Your task to perform on an android device: open app "Paramount+ | Peak Streaming" (install if not already installed) and go to login screen Image 0: 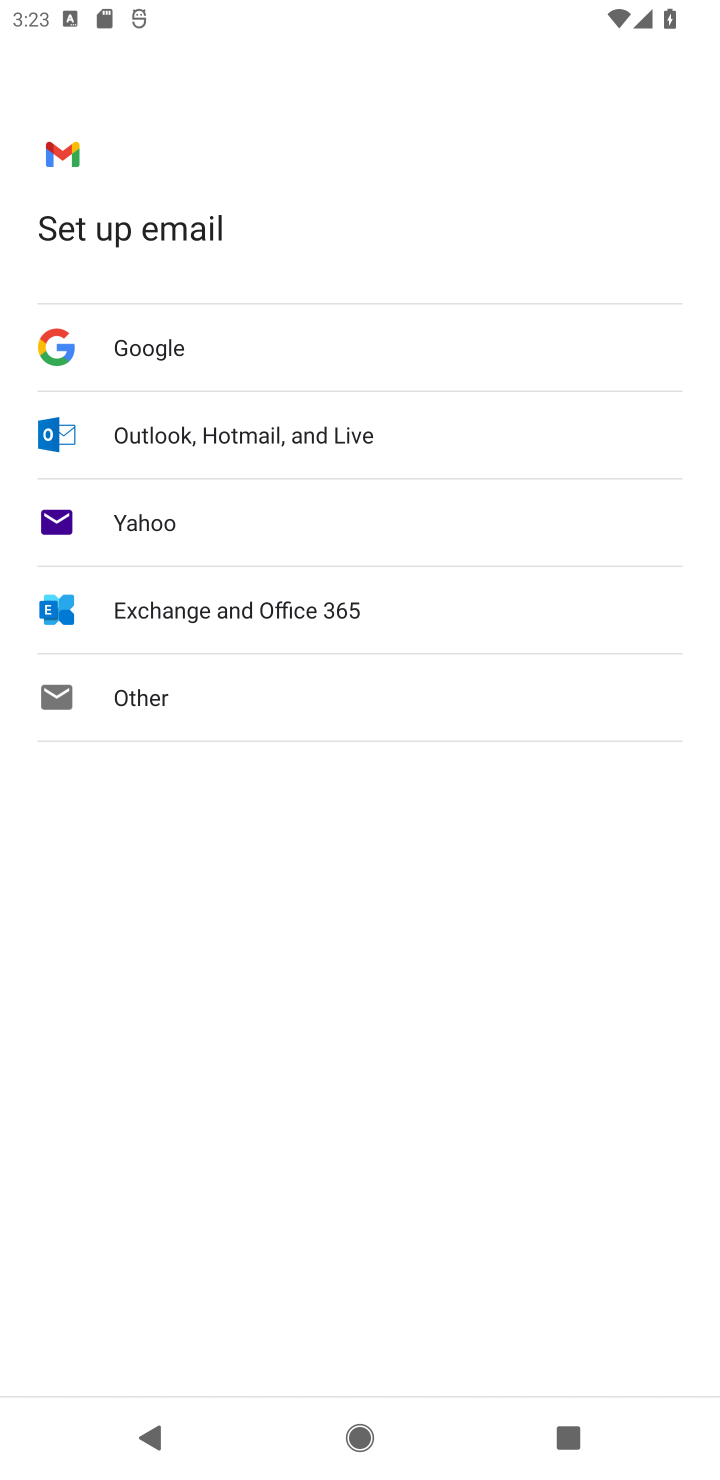
Step 0: press home button
Your task to perform on an android device: open app "Paramount+ | Peak Streaming" (install if not already installed) and go to login screen Image 1: 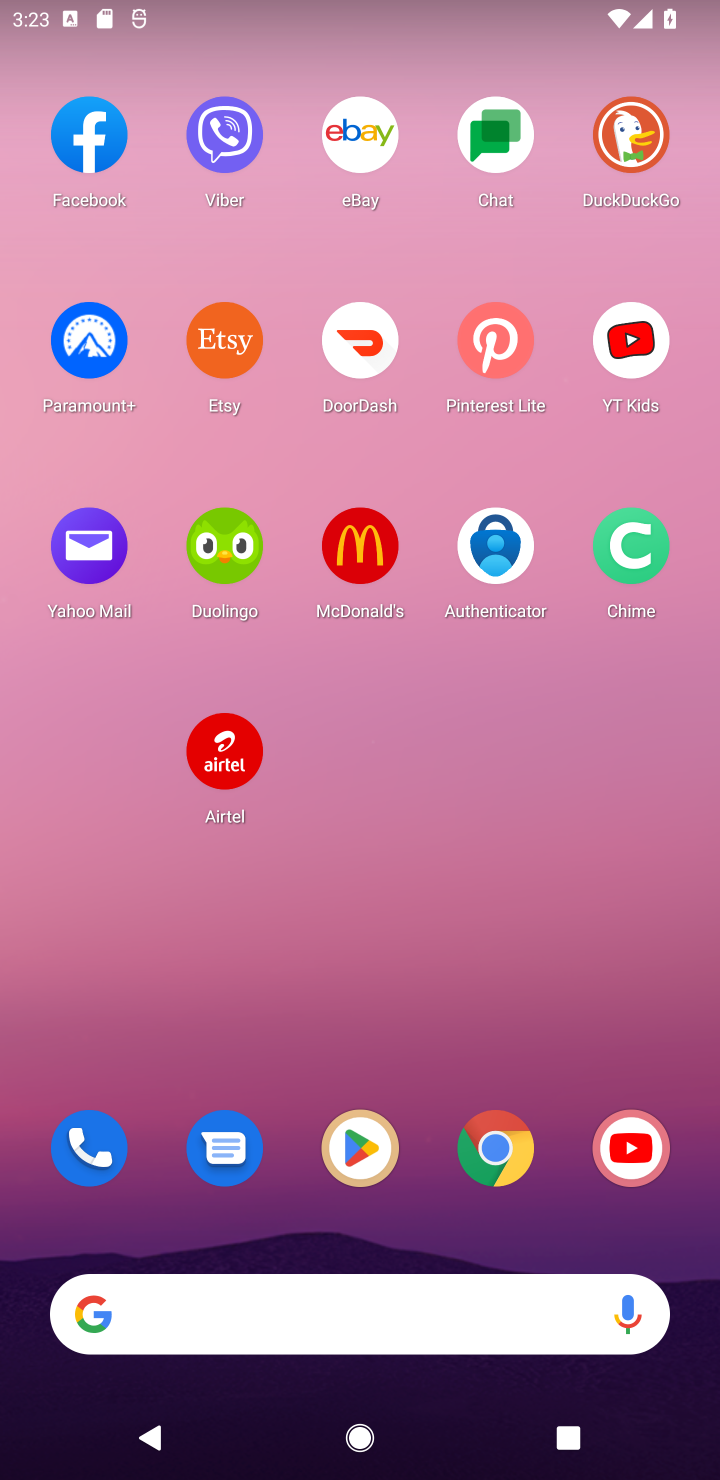
Step 1: drag from (393, 1200) to (460, 700)
Your task to perform on an android device: open app "Paramount+ | Peak Streaming" (install if not already installed) and go to login screen Image 2: 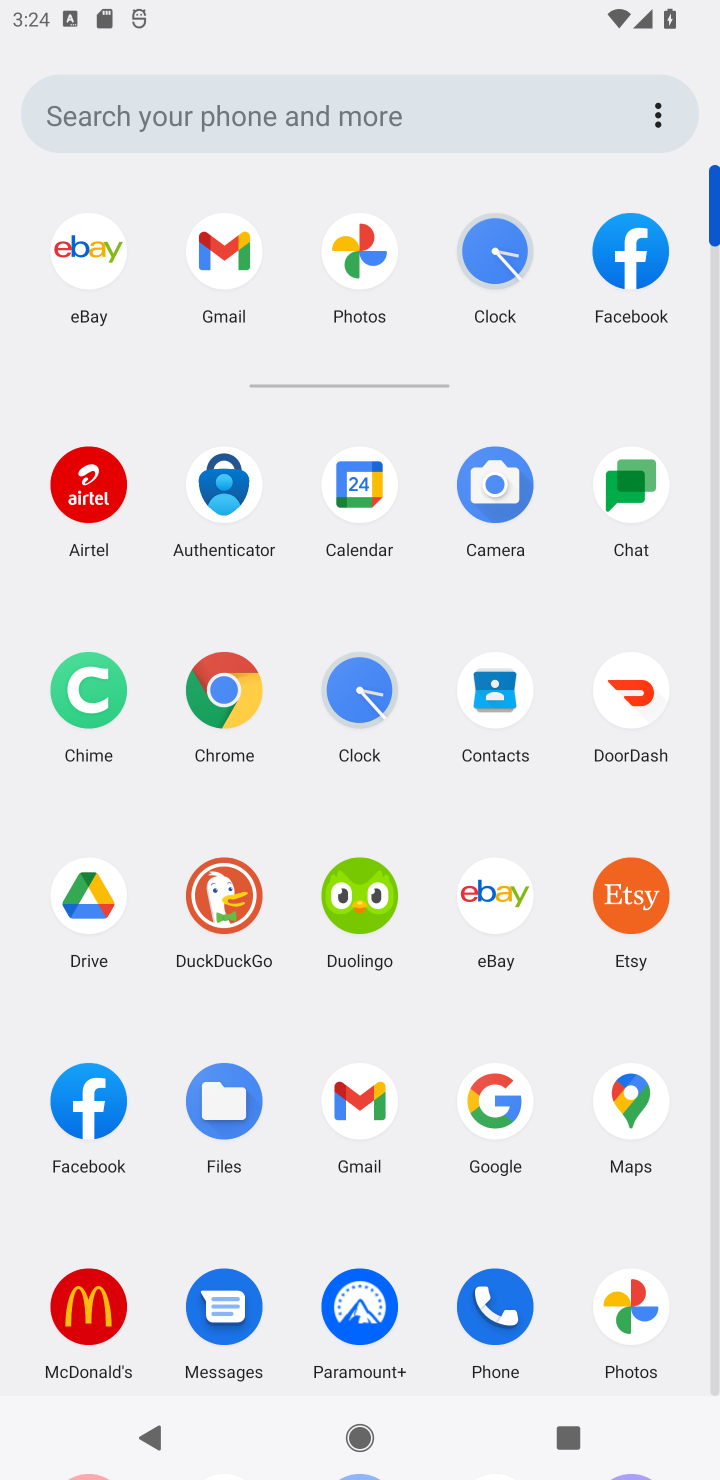
Step 2: drag from (305, 1182) to (334, 367)
Your task to perform on an android device: open app "Paramount+ | Peak Streaming" (install if not already installed) and go to login screen Image 3: 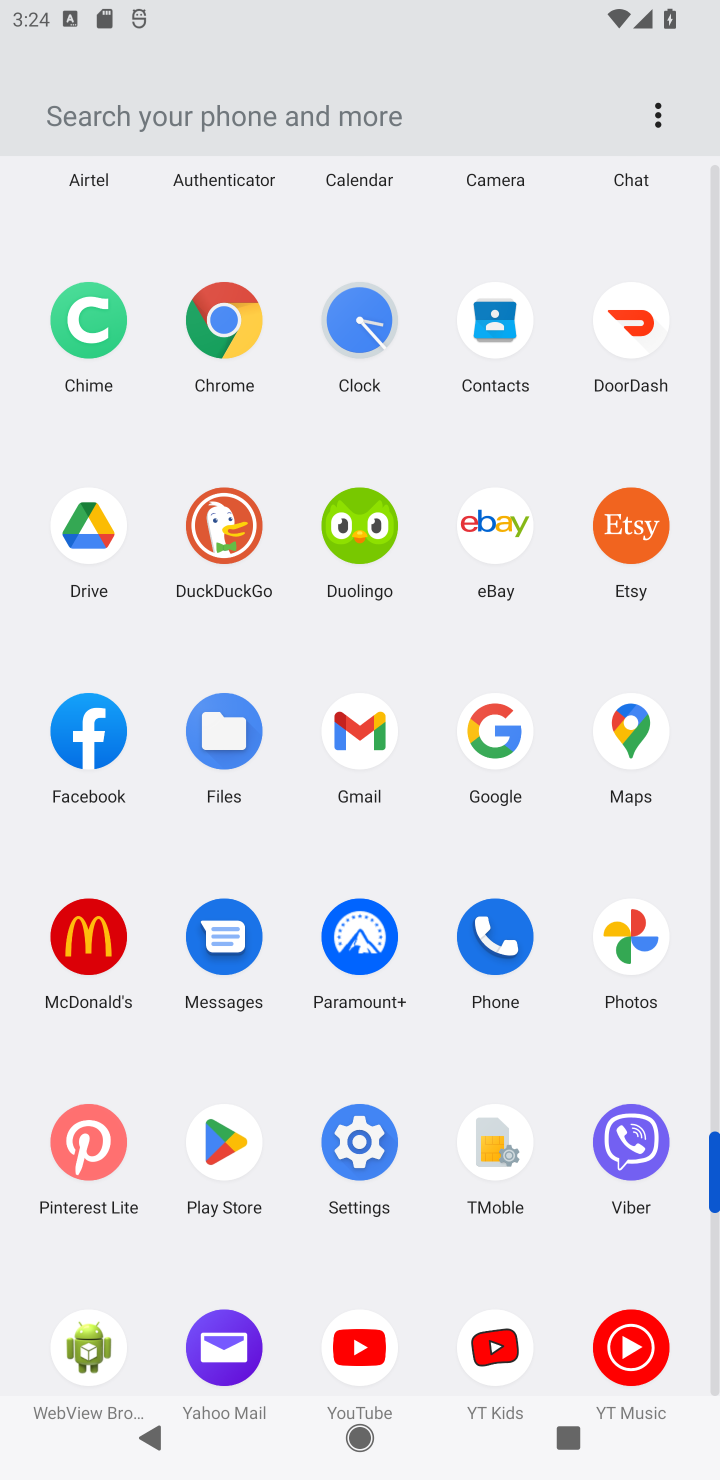
Step 3: click (217, 1140)
Your task to perform on an android device: open app "Paramount+ | Peak Streaming" (install if not already installed) and go to login screen Image 4: 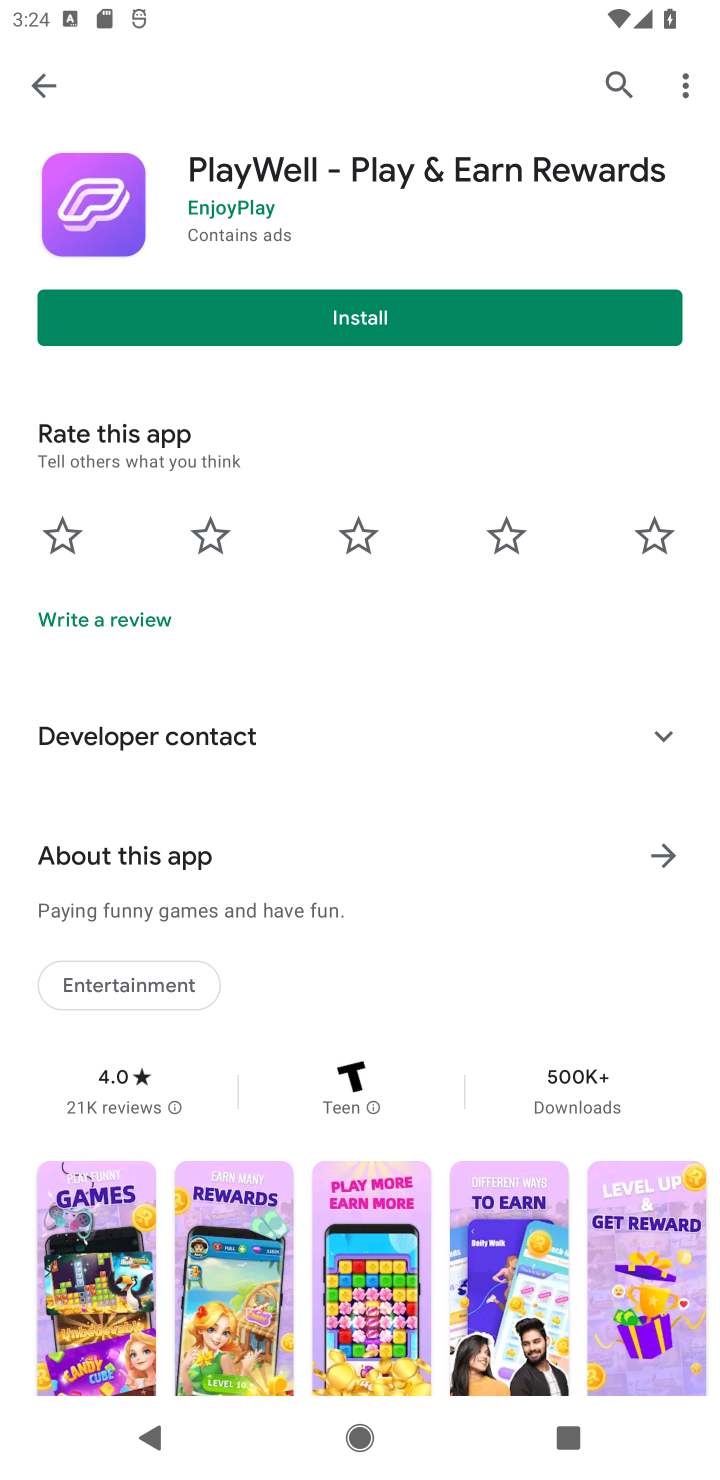
Step 4: click (30, 85)
Your task to perform on an android device: open app "Paramount+ | Peak Streaming" (install if not already installed) and go to login screen Image 5: 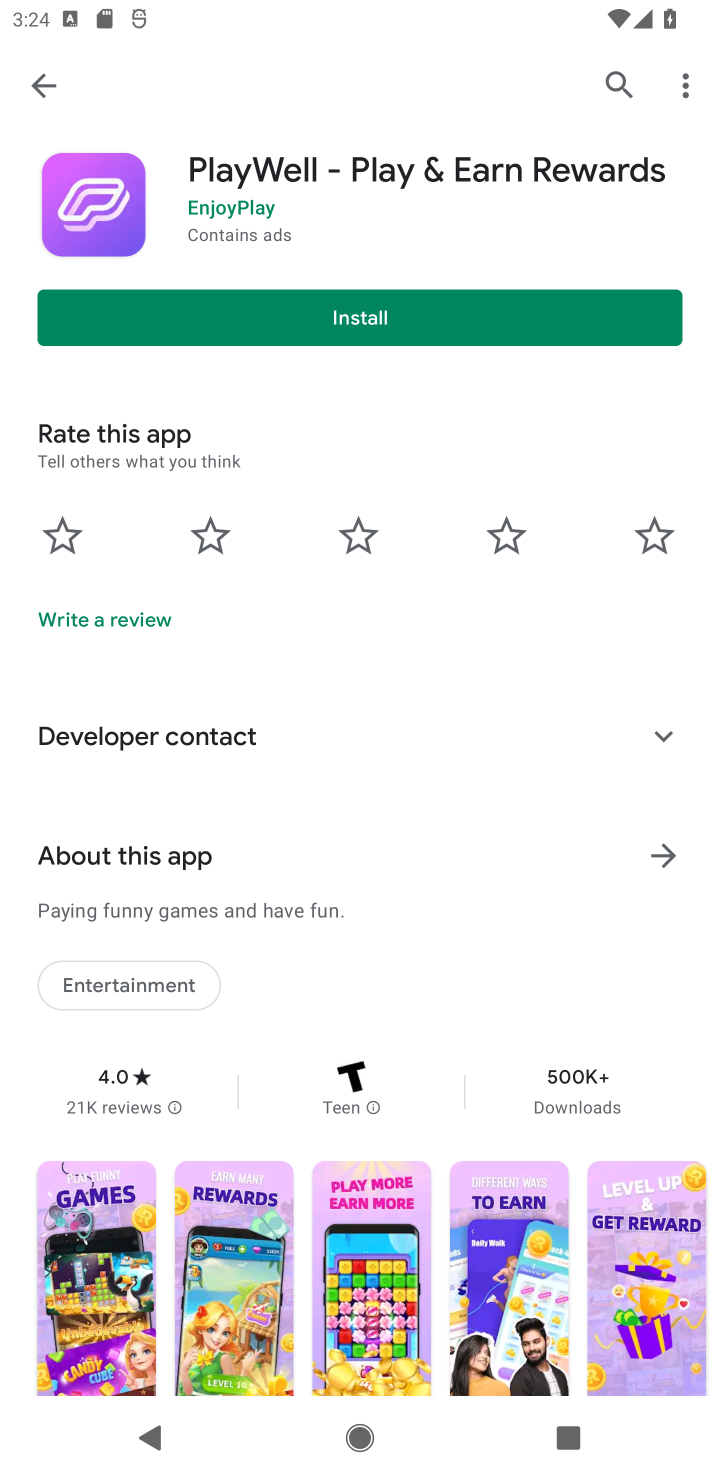
Step 5: click (34, 85)
Your task to perform on an android device: open app "Paramount+ | Peak Streaming" (install if not already installed) and go to login screen Image 6: 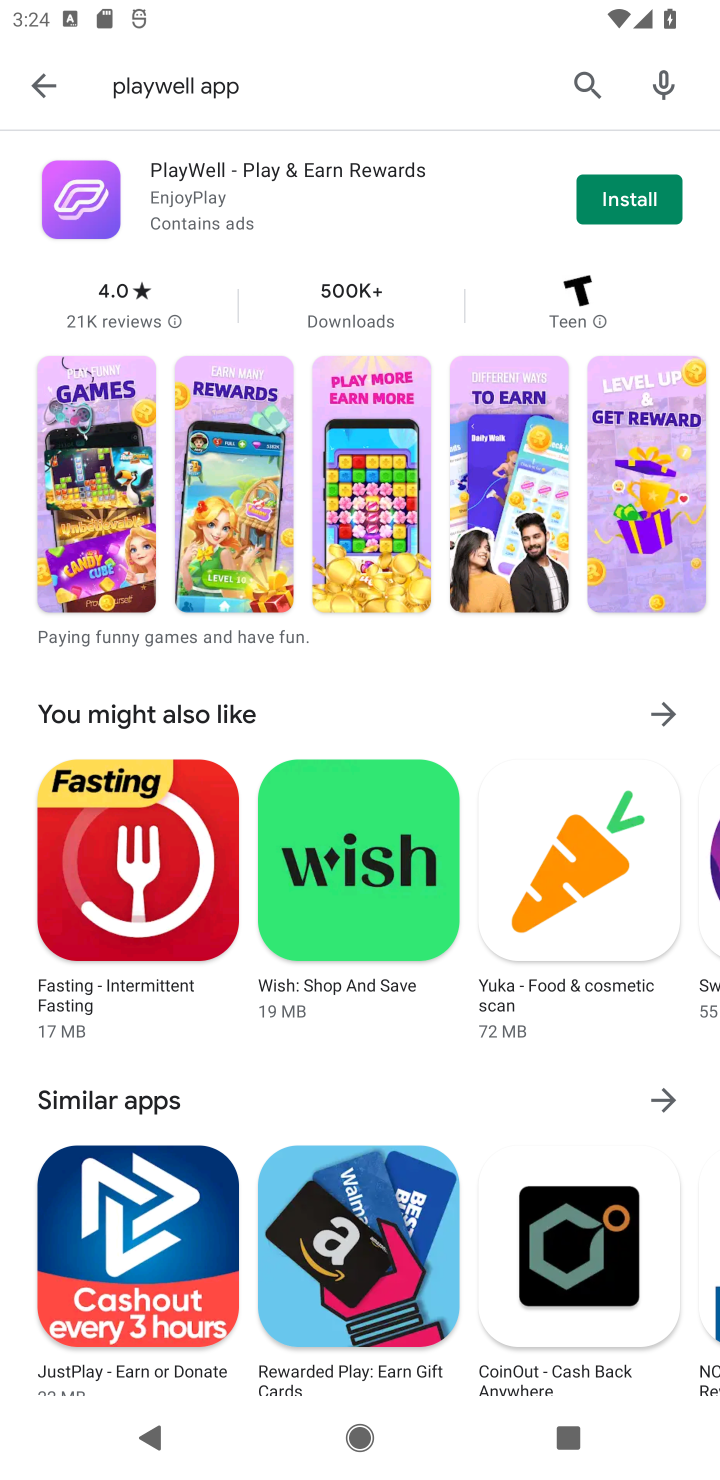
Step 6: click (45, 76)
Your task to perform on an android device: open app "Paramount+ | Peak Streaming" (install if not already installed) and go to login screen Image 7: 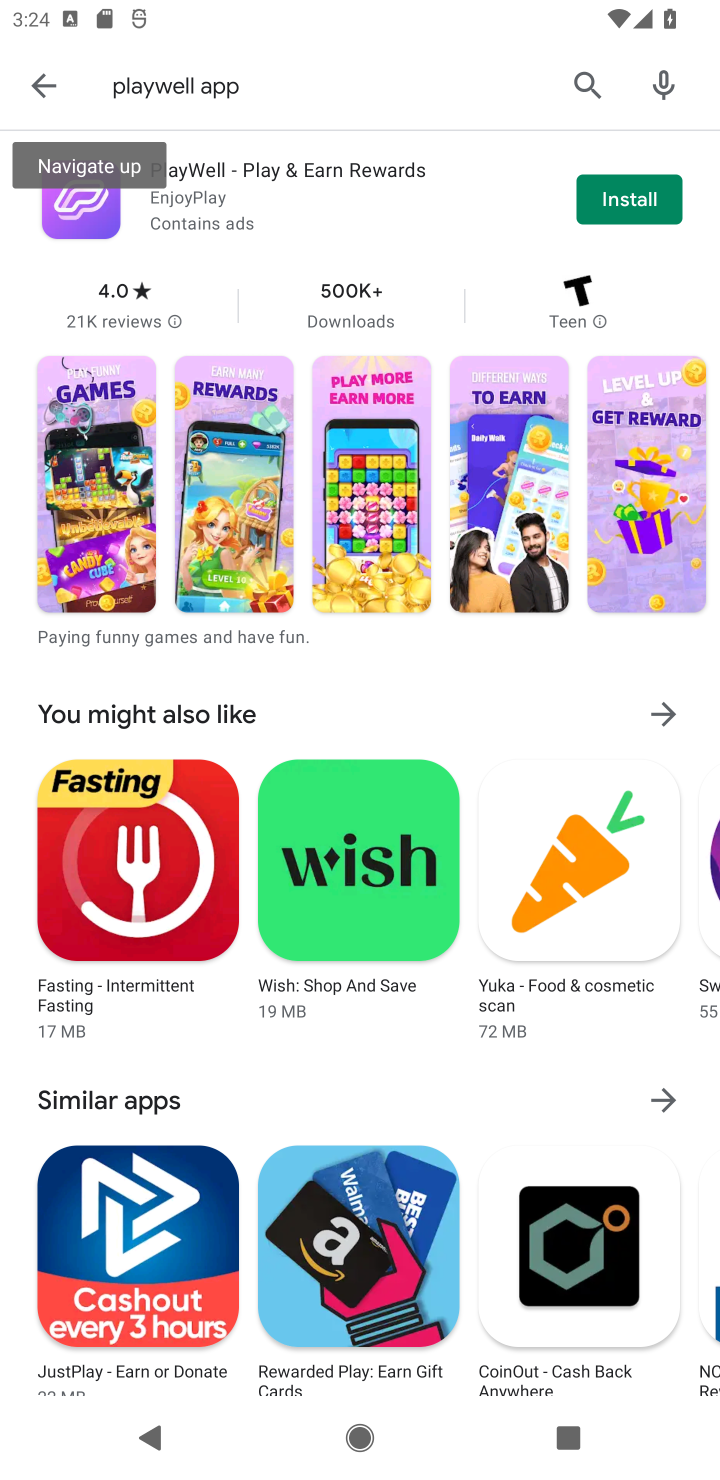
Step 7: click (45, 80)
Your task to perform on an android device: open app "Paramount+ | Peak Streaming" (install if not already installed) and go to login screen Image 8: 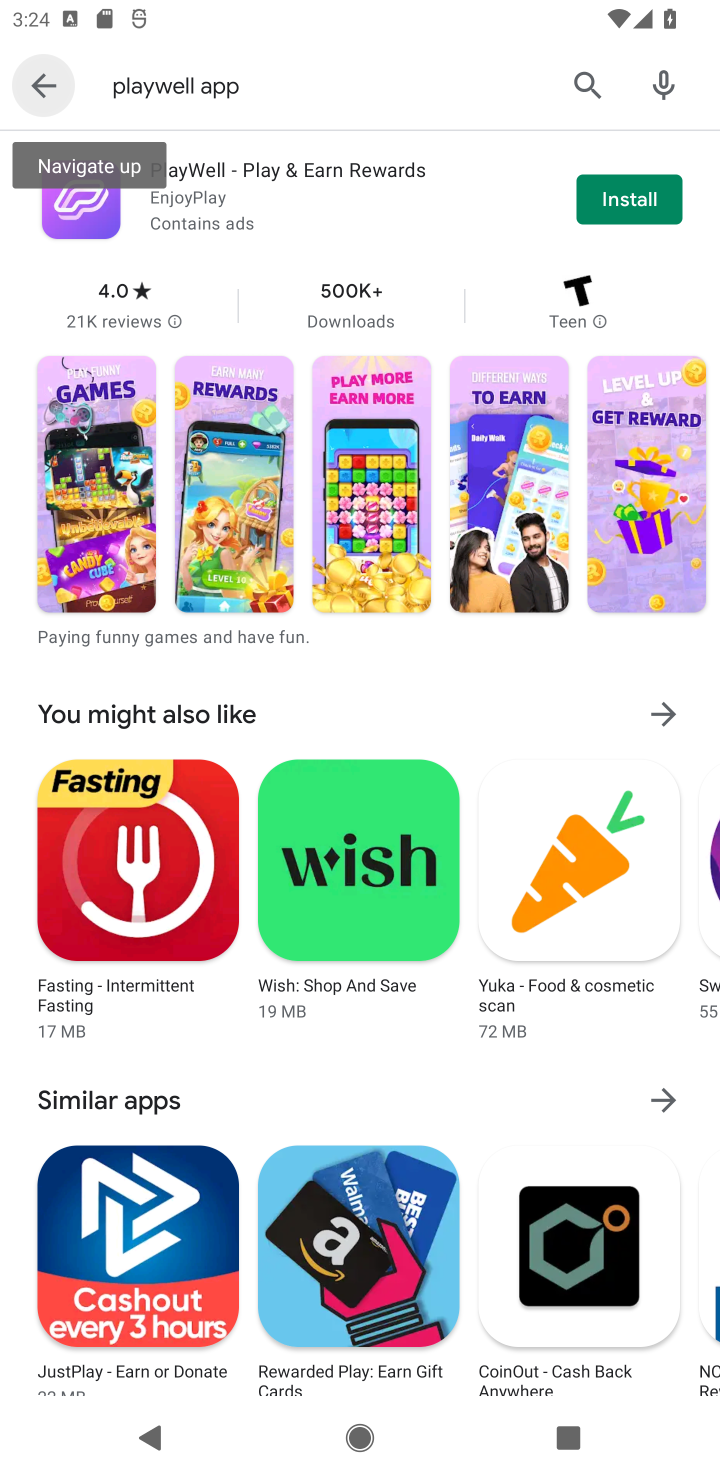
Step 8: click (568, 88)
Your task to perform on an android device: open app "Paramount+ | Peak Streaming" (install if not already installed) and go to login screen Image 9: 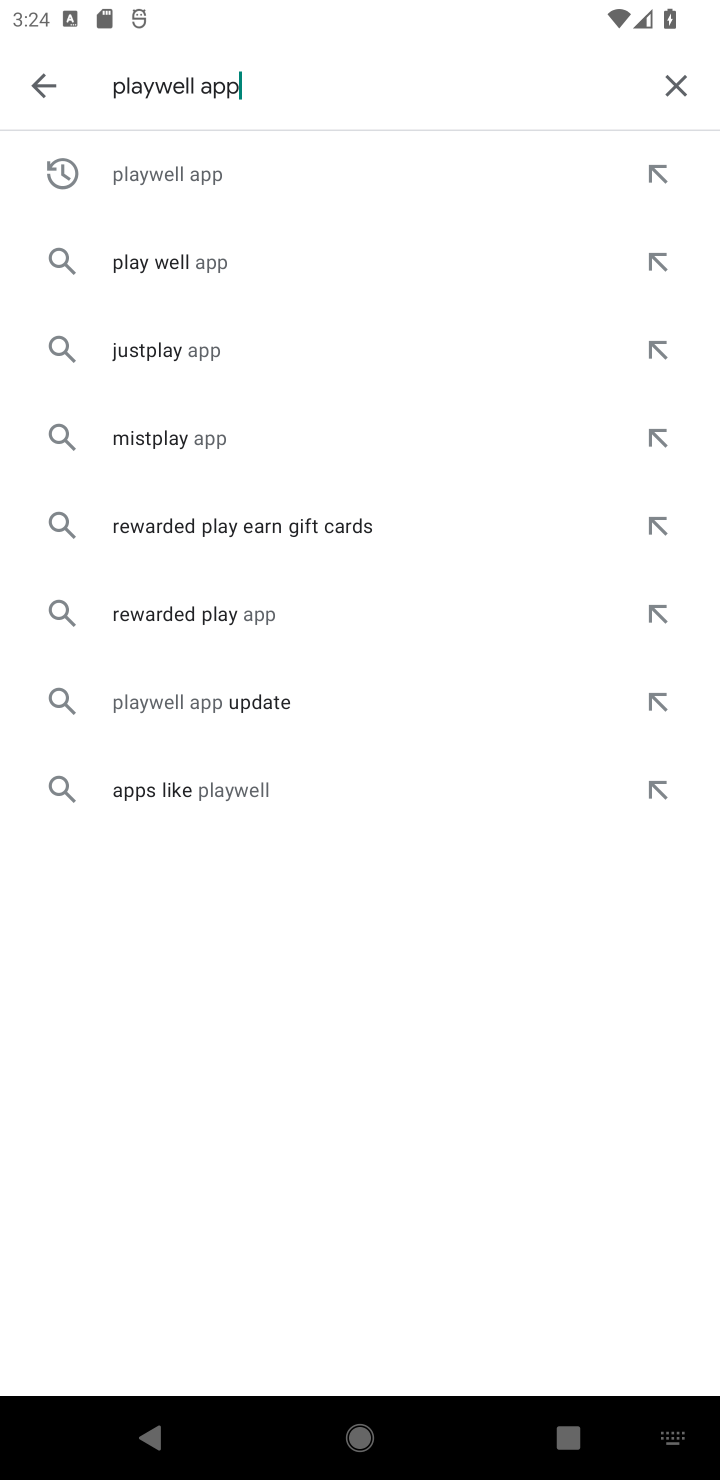
Step 9: click (683, 83)
Your task to perform on an android device: open app "Paramount+ | Peak Streaming" (install if not already installed) and go to login screen Image 10: 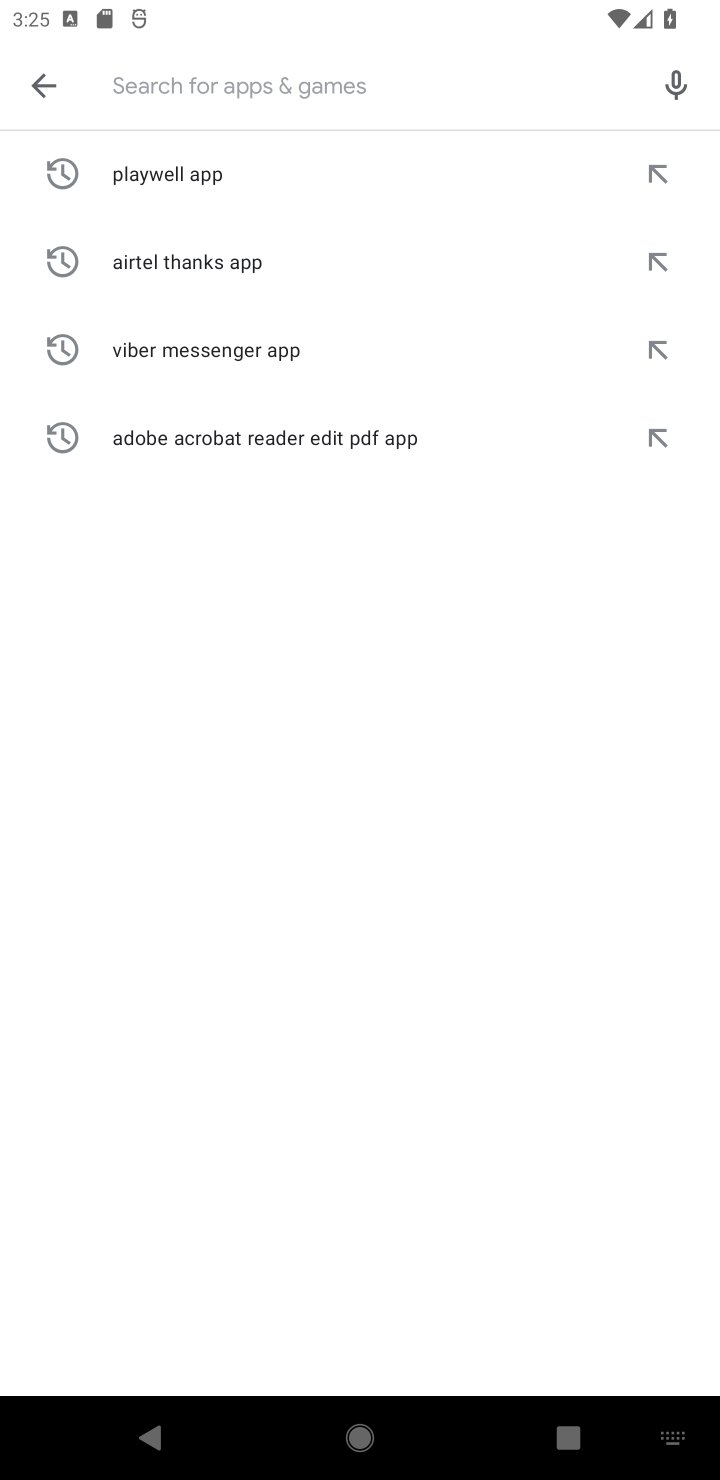
Step 10: click (296, 47)
Your task to perform on an android device: open app "Paramount+ | Peak Streaming" (install if not already installed) and go to login screen Image 11: 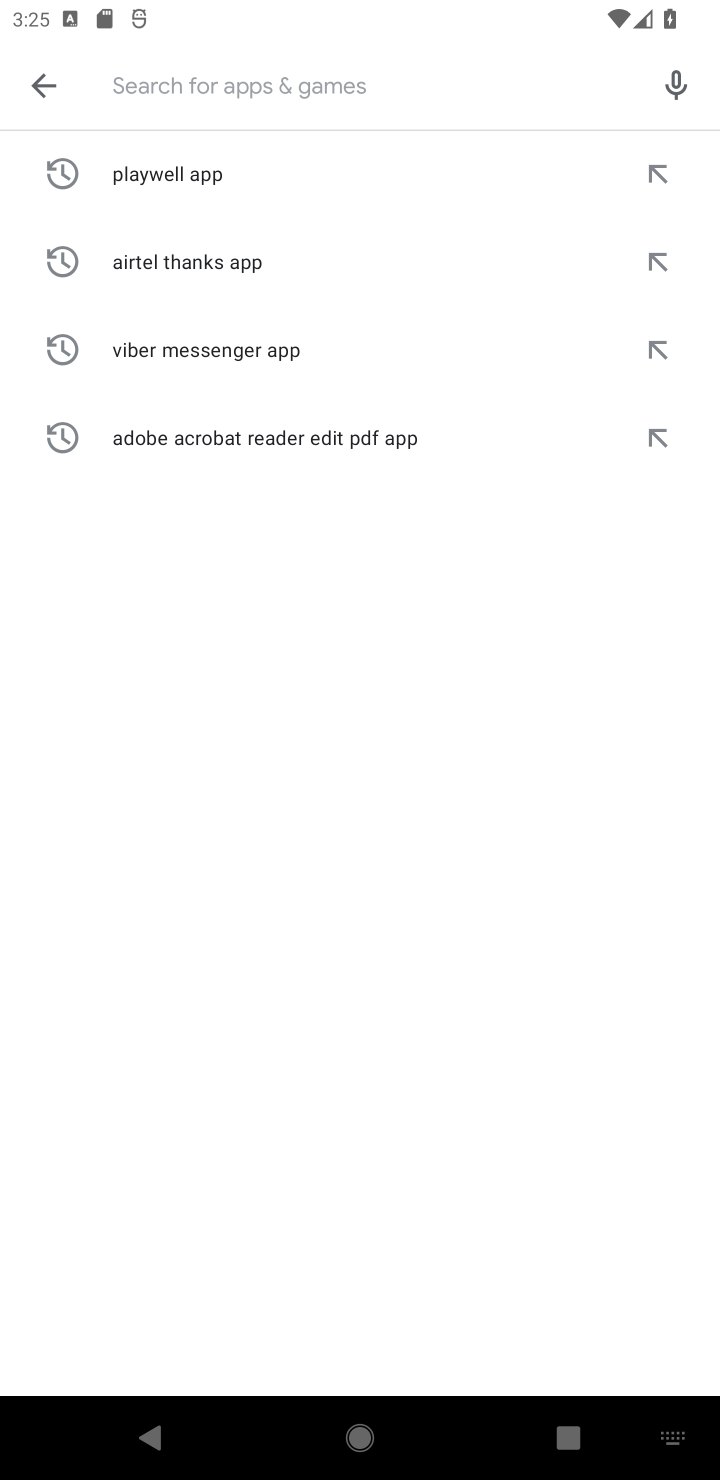
Step 11: click (352, 81)
Your task to perform on an android device: open app "Paramount+ | Peak Streaming" (install if not already installed) and go to login screen Image 12: 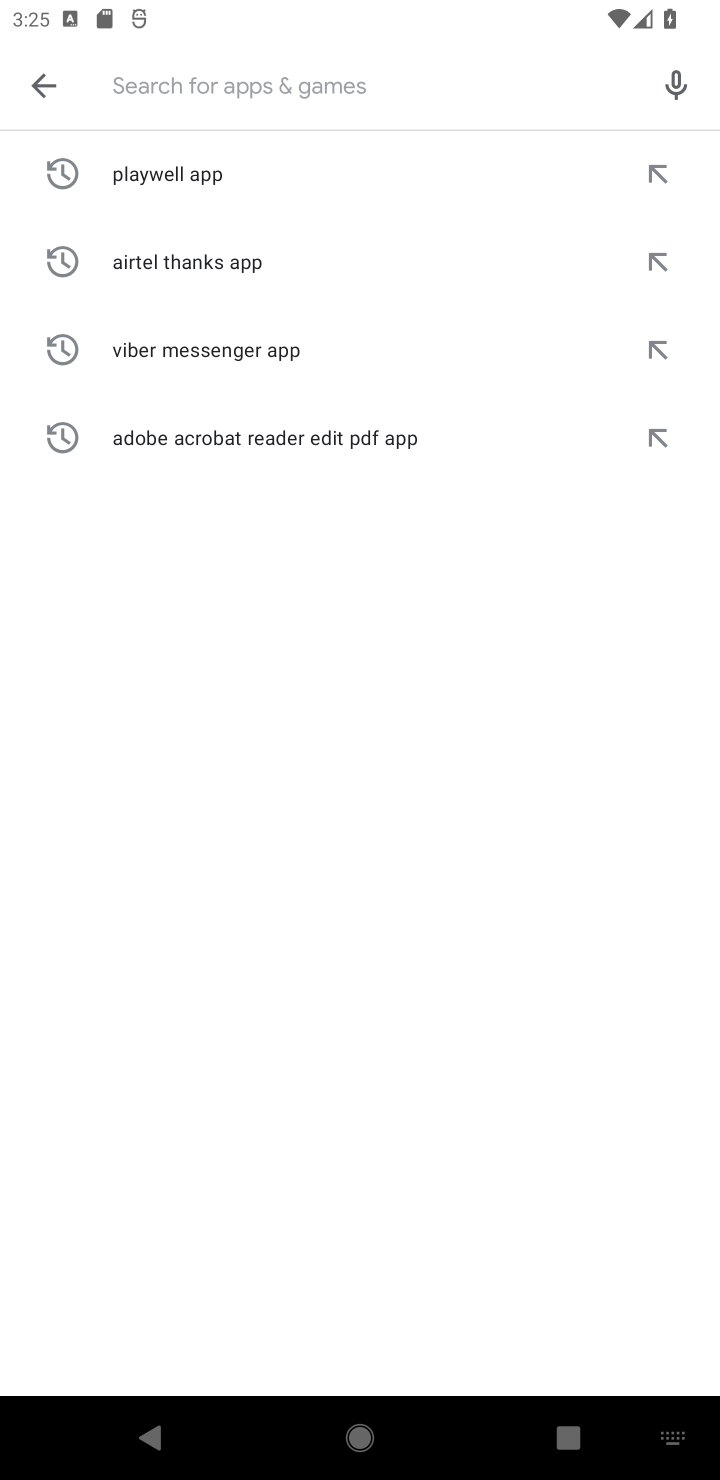
Step 12: type "Paramount "
Your task to perform on an android device: open app "Paramount+ | Peak Streaming" (install if not already installed) and go to login screen Image 13: 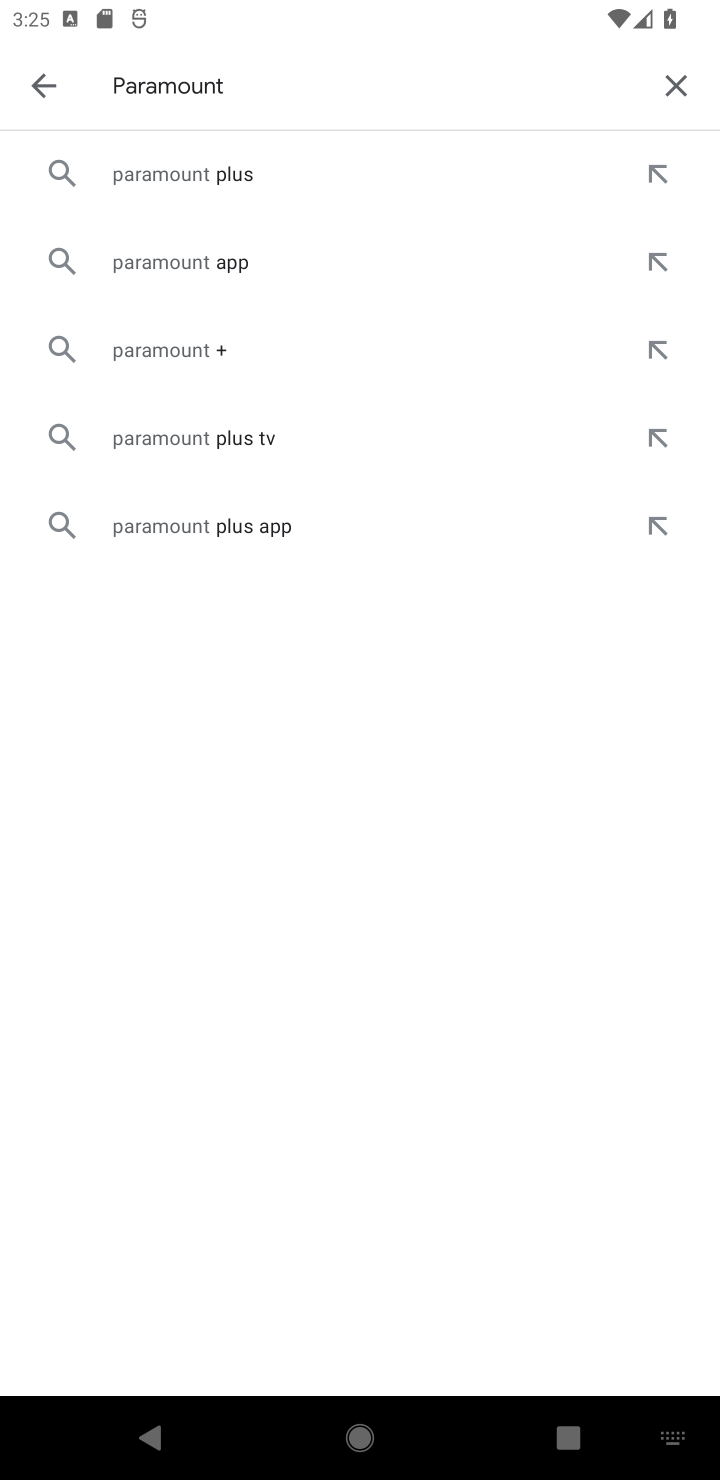
Step 13: click (196, 171)
Your task to perform on an android device: open app "Paramount+ | Peak Streaming" (install if not already installed) and go to login screen Image 14: 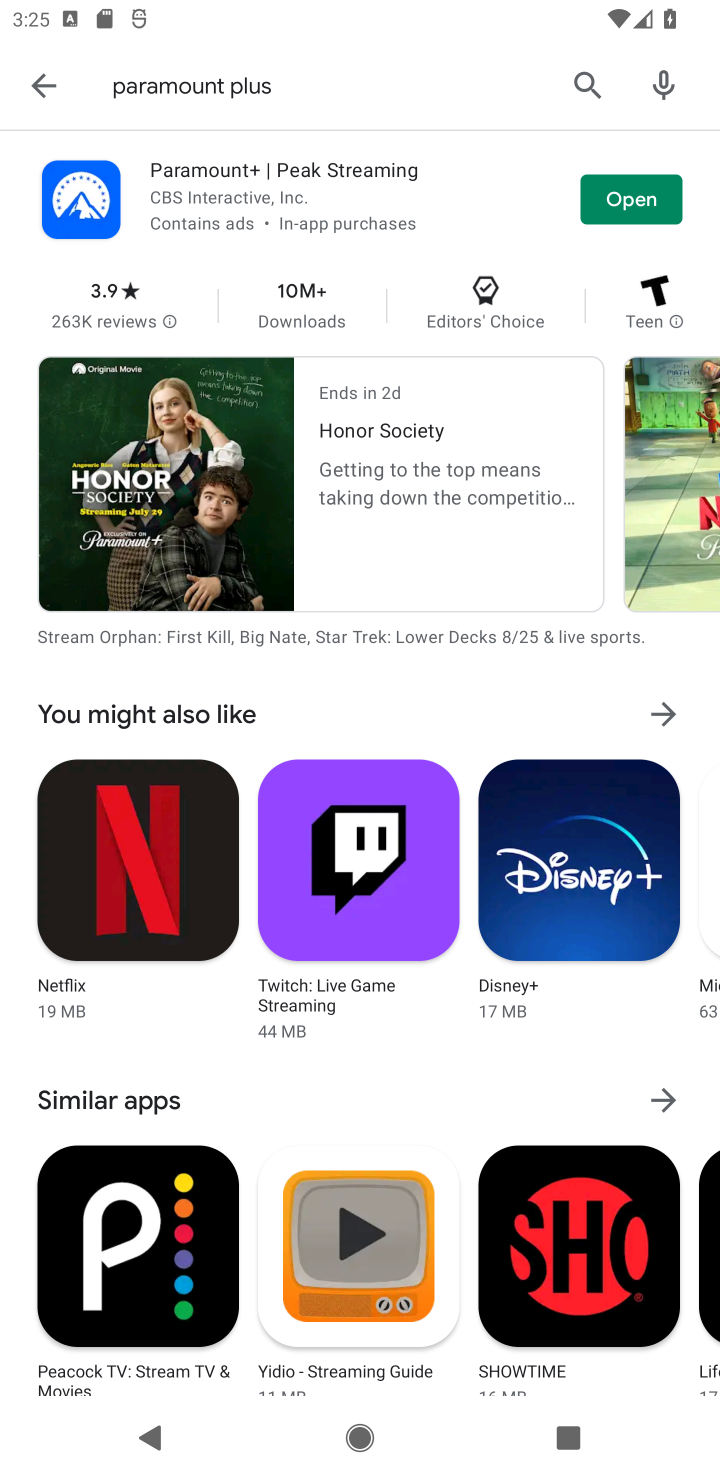
Step 14: click (612, 188)
Your task to perform on an android device: open app "Paramount+ | Peak Streaming" (install if not already installed) and go to login screen Image 15: 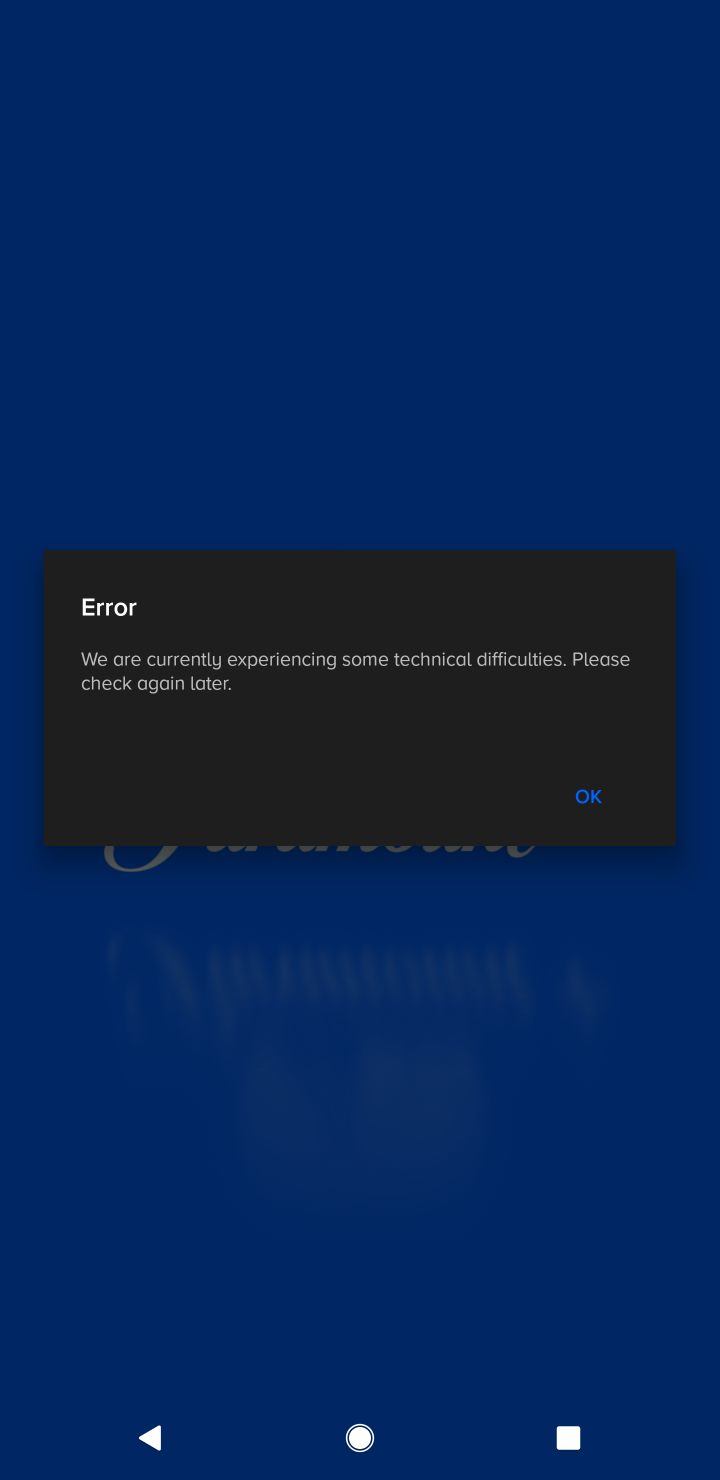
Step 15: task complete